Your task to perform on an android device: toggle improve location accuracy Image 0: 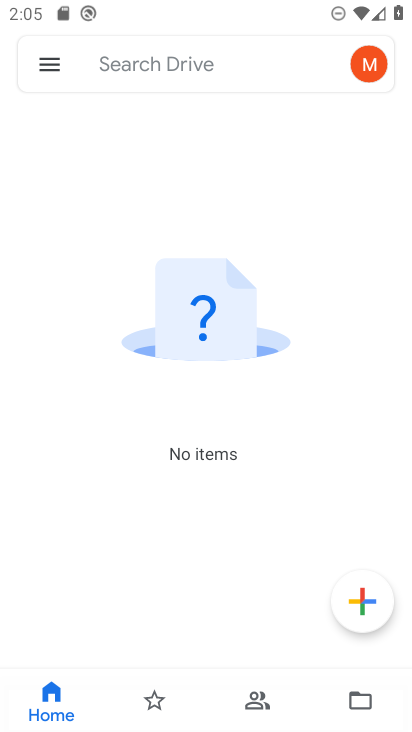
Step 0: press home button
Your task to perform on an android device: toggle improve location accuracy Image 1: 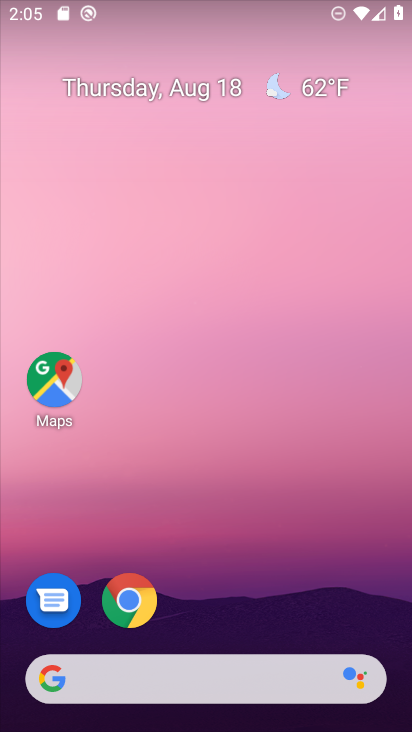
Step 1: drag from (233, 572) to (297, 29)
Your task to perform on an android device: toggle improve location accuracy Image 2: 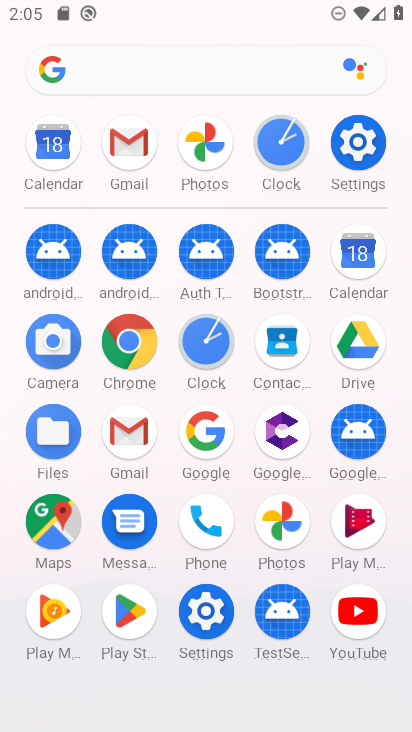
Step 2: click (358, 137)
Your task to perform on an android device: toggle improve location accuracy Image 3: 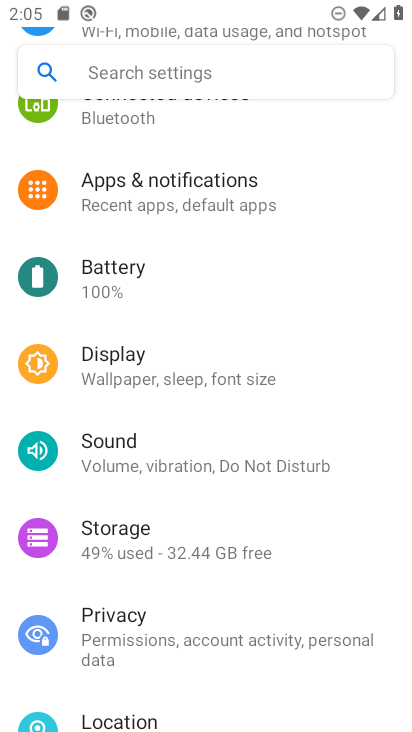
Step 3: click (120, 716)
Your task to perform on an android device: toggle improve location accuracy Image 4: 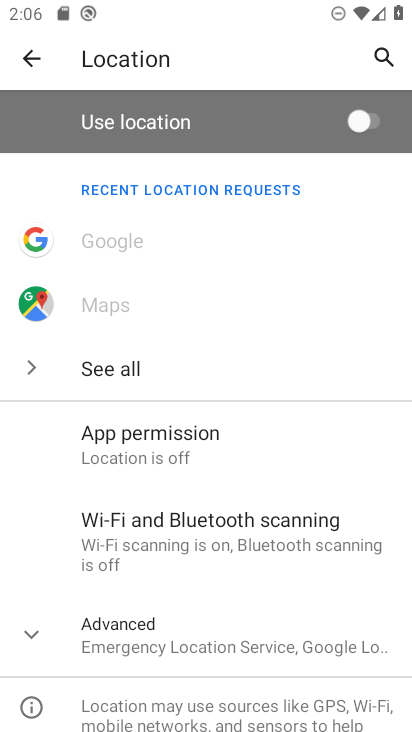
Step 4: click (44, 631)
Your task to perform on an android device: toggle improve location accuracy Image 5: 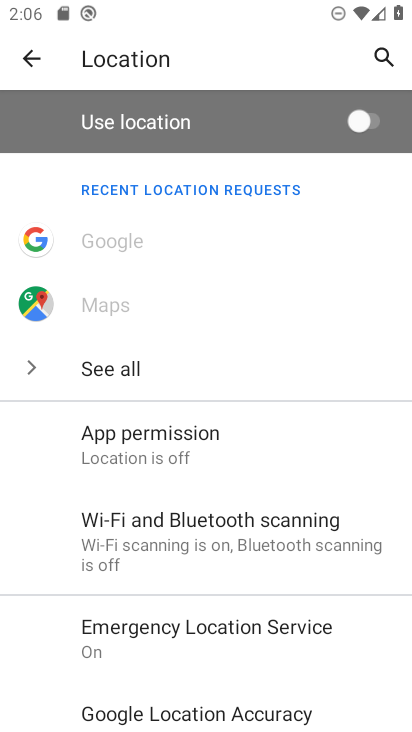
Step 5: click (208, 708)
Your task to perform on an android device: toggle improve location accuracy Image 6: 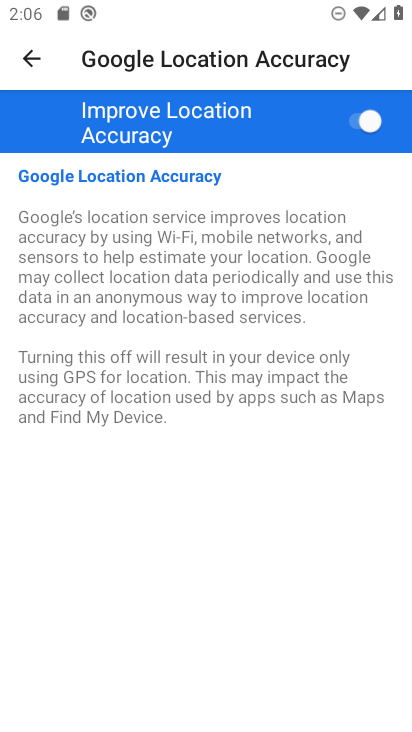
Step 6: click (368, 118)
Your task to perform on an android device: toggle improve location accuracy Image 7: 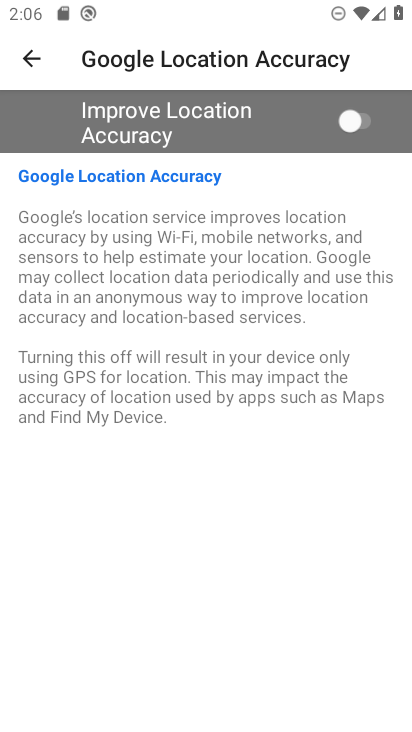
Step 7: task complete